Your task to perform on an android device: open device folders in google photos Image 0: 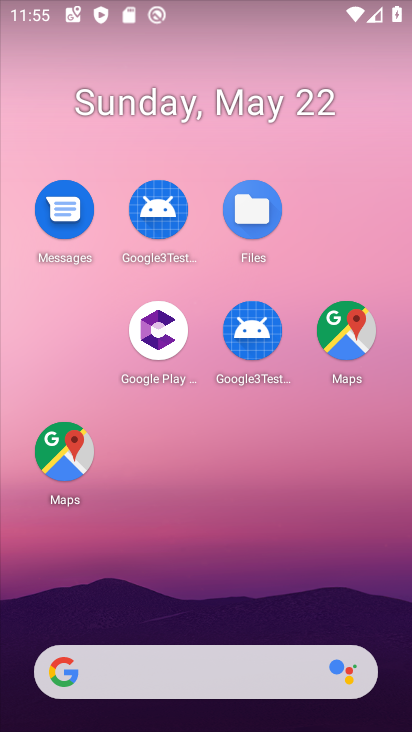
Step 0: drag from (207, 614) to (208, 80)
Your task to perform on an android device: open device folders in google photos Image 1: 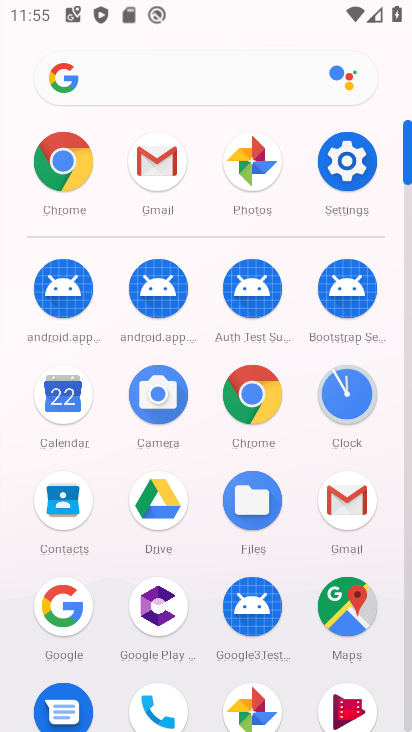
Step 1: click (242, 156)
Your task to perform on an android device: open device folders in google photos Image 2: 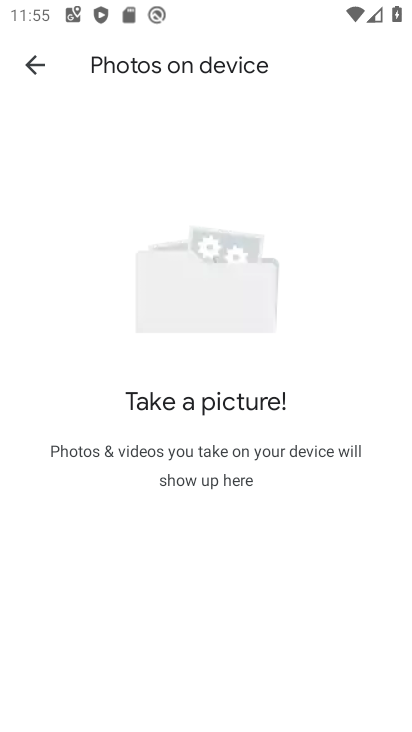
Step 2: click (30, 64)
Your task to perform on an android device: open device folders in google photos Image 3: 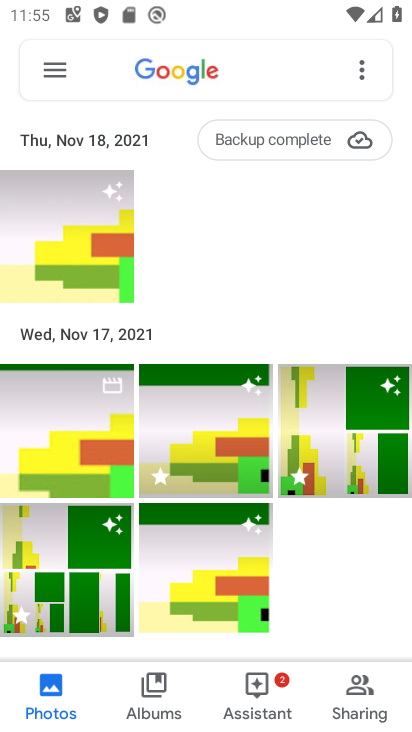
Step 3: click (49, 61)
Your task to perform on an android device: open device folders in google photos Image 4: 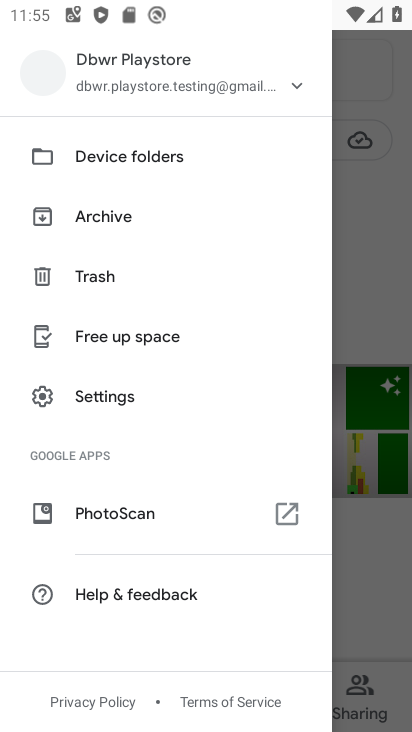
Step 4: click (107, 148)
Your task to perform on an android device: open device folders in google photos Image 5: 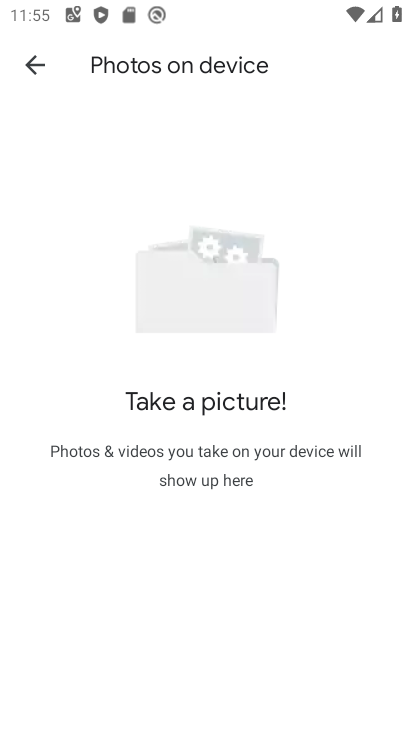
Step 5: task complete